Your task to perform on an android device: Go to battery settings Image 0: 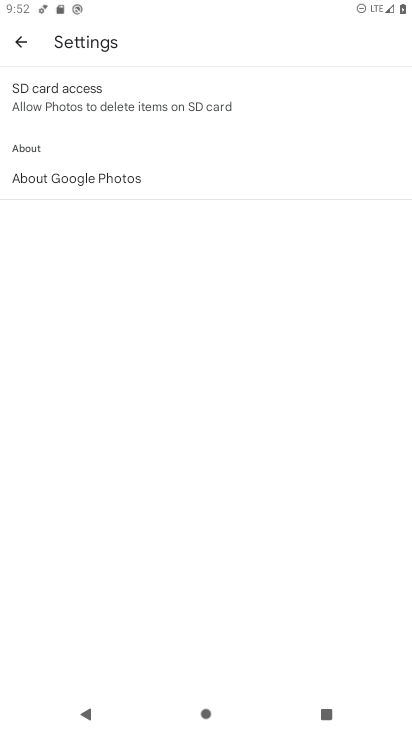
Step 0: press home button
Your task to perform on an android device: Go to battery settings Image 1: 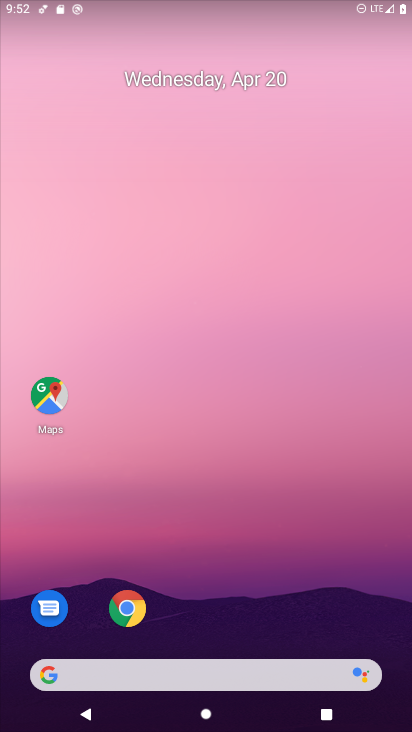
Step 1: drag from (218, 601) to (326, 1)
Your task to perform on an android device: Go to battery settings Image 2: 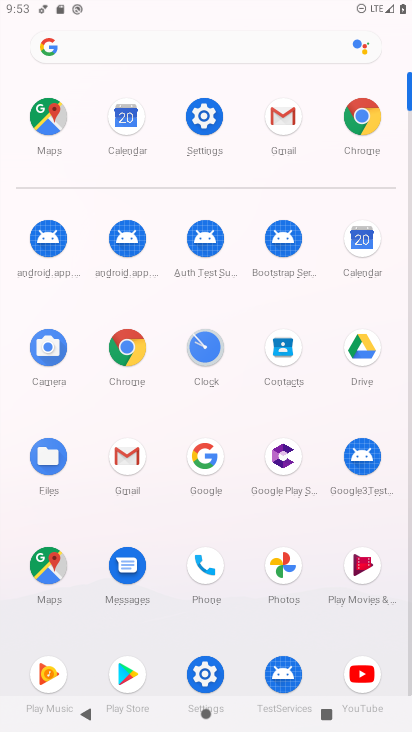
Step 2: click (208, 665)
Your task to perform on an android device: Go to battery settings Image 3: 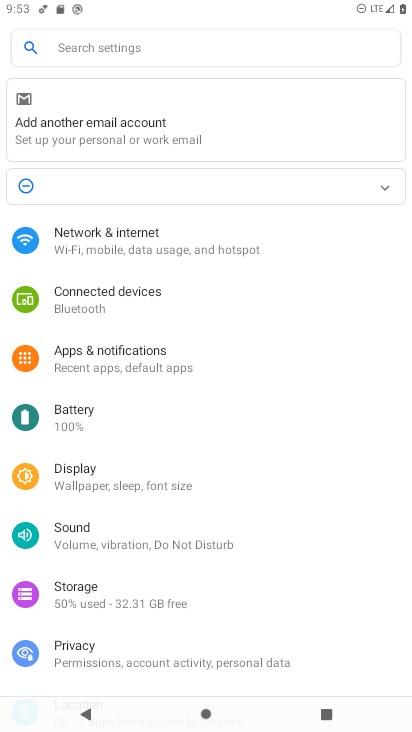
Step 3: click (89, 417)
Your task to perform on an android device: Go to battery settings Image 4: 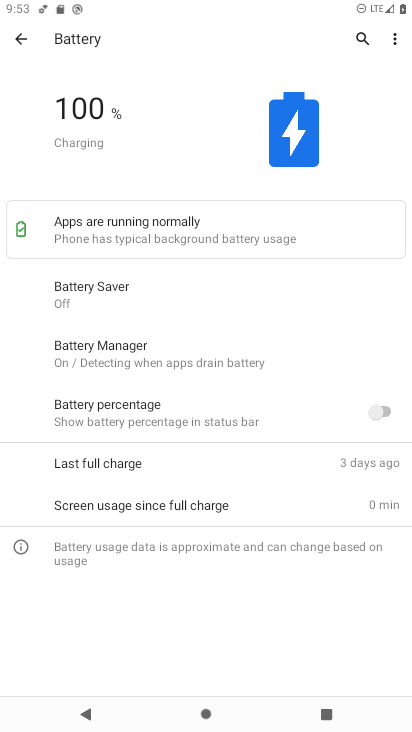
Step 4: task complete